Your task to perform on an android device: visit the assistant section in the google photos Image 0: 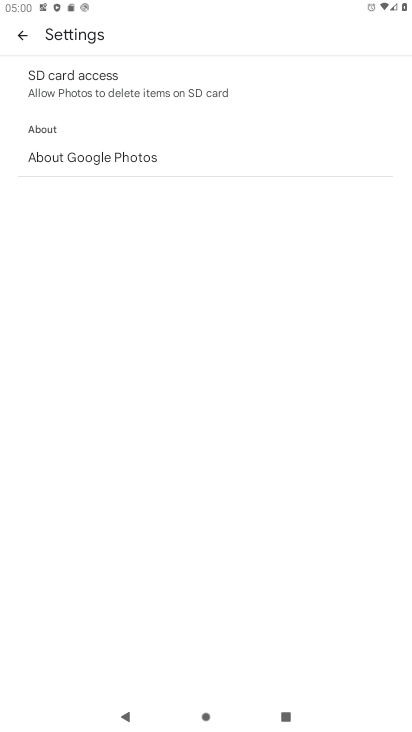
Step 0: press home button
Your task to perform on an android device: visit the assistant section in the google photos Image 1: 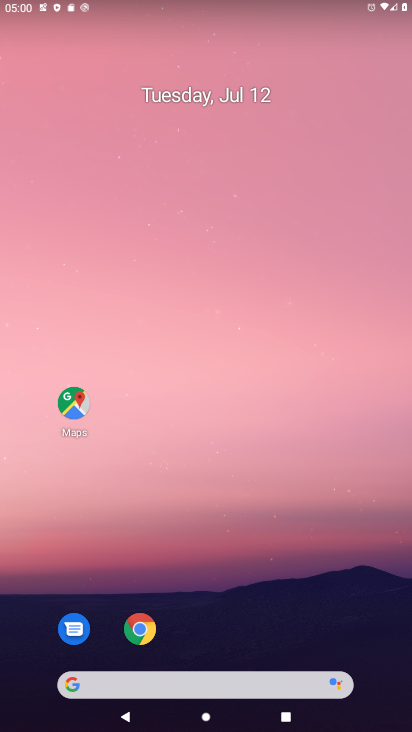
Step 1: drag from (197, 646) to (222, 0)
Your task to perform on an android device: visit the assistant section in the google photos Image 2: 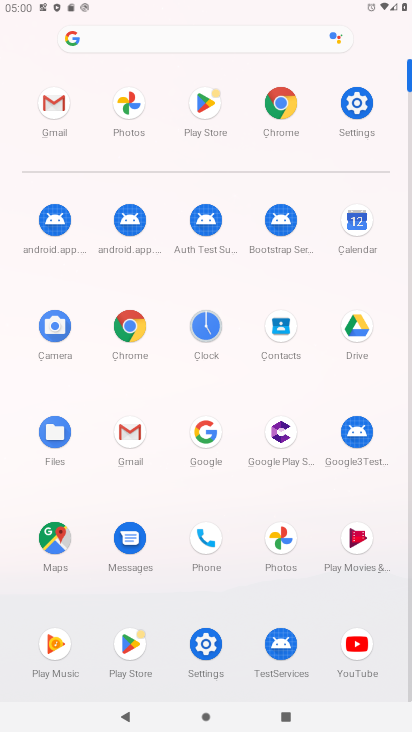
Step 2: click (273, 543)
Your task to perform on an android device: visit the assistant section in the google photos Image 3: 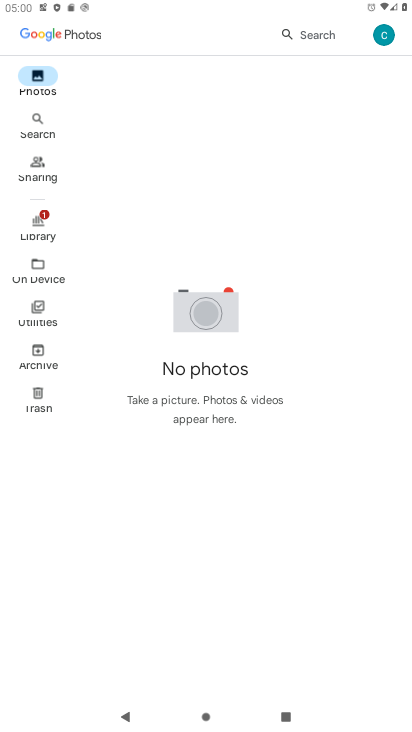
Step 3: click (285, 27)
Your task to perform on an android device: visit the assistant section in the google photos Image 4: 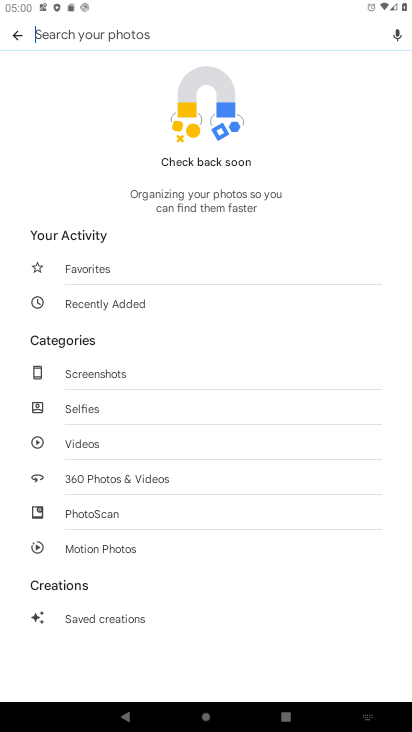
Step 4: type "assistant section"
Your task to perform on an android device: visit the assistant section in the google photos Image 5: 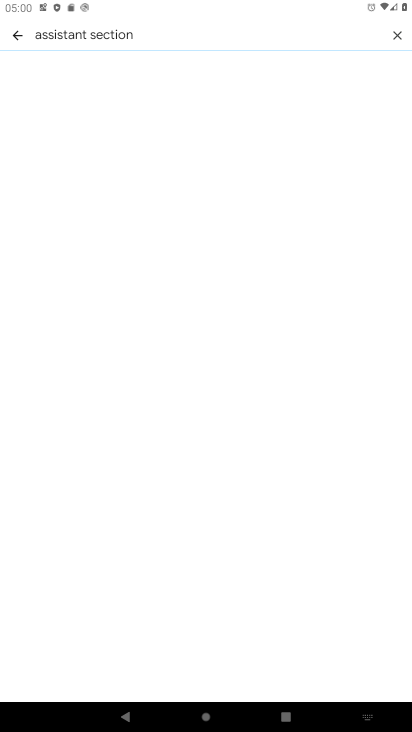
Step 5: press enter
Your task to perform on an android device: visit the assistant section in the google photos Image 6: 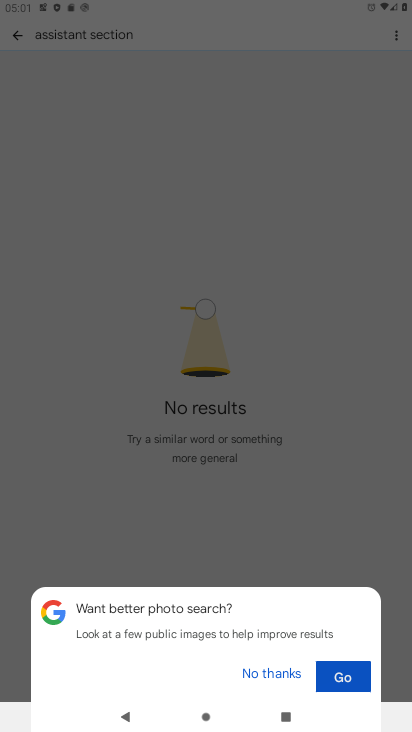
Step 6: click (275, 679)
Your task to perform on an android device: visit the assistant section in the google photos Image 7: 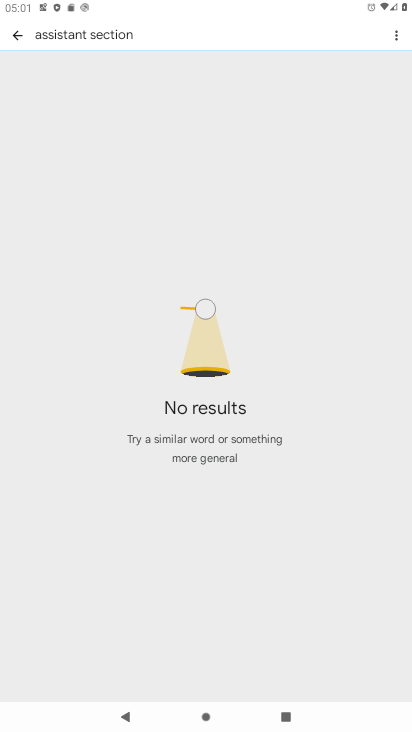
Step 7: task complete